Your task to perform on an android device: What's on my calendar today? Image 0: 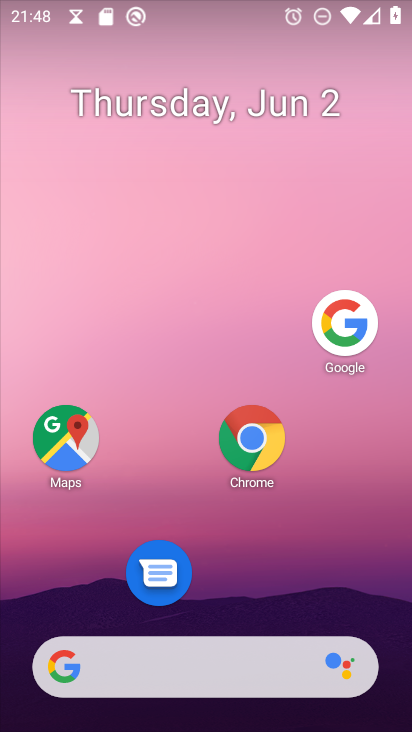
Step 0: press home button
Your task to perform on an android device: What's on my calendar today? Image 1: 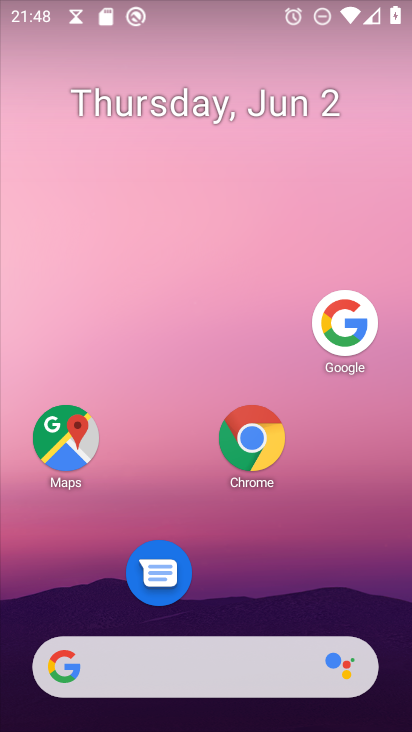
Step 1: drag from (203, 674) to (283, 178)
Your task to perform on an android device: What's on my calendar today? Image 2: 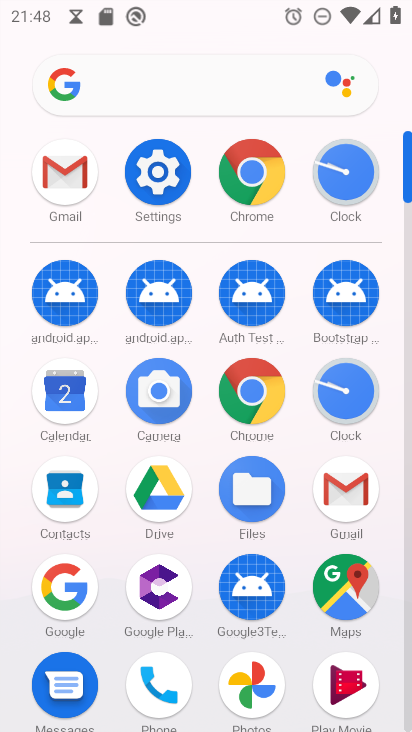
Step 2: click (62, 393)
Your task to perform on an android device: What's on my calendar today? Image 3: 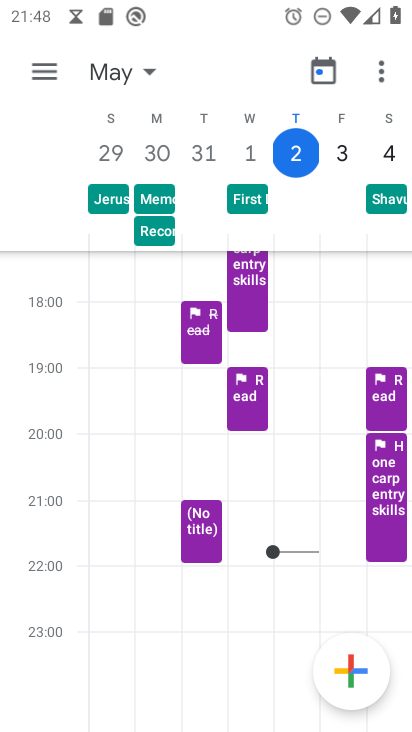
Step 3: click (107, 76)
Your task to perform on an android device: What's on my calendar today? Image 4: 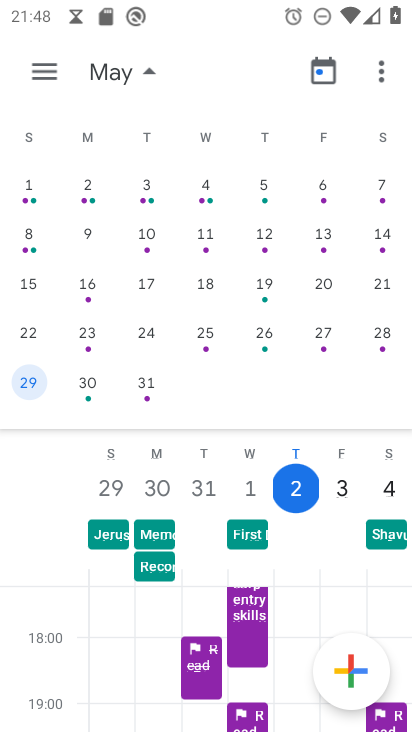
Step 4: drag from (376, 256) to (0, 272)
Your task to perform on an android device: What's on my calendar today? Image 5: 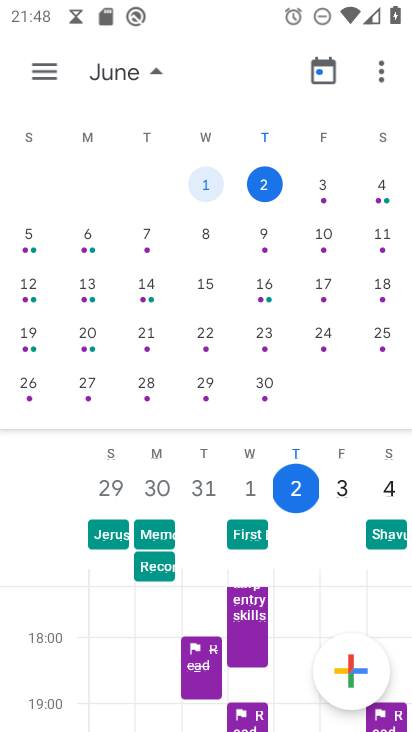
Step 5: click (270, 177)
Your task to perform on an android device: What's on my calendar today? Image 6: 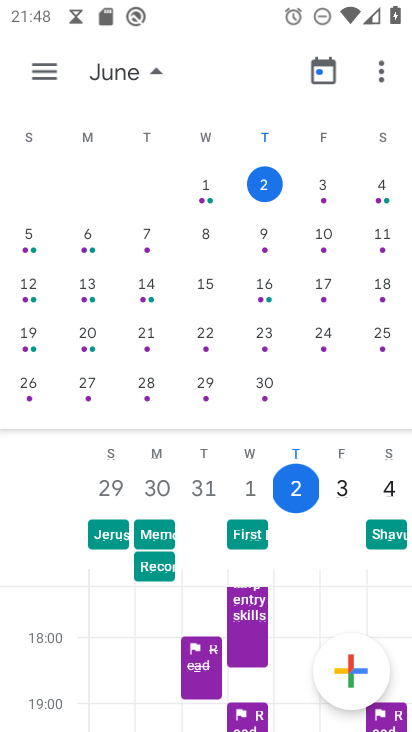
Step 6: click (42, 69)
Your task to perform on an android device: What's on my calendar today? Image 7: 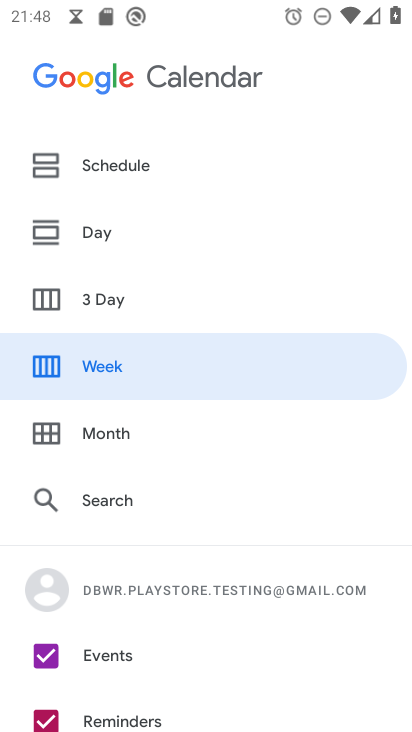
Step 7: click (98, 162)
Your task to perform on an android device: What's on my calendar today? Image 8: 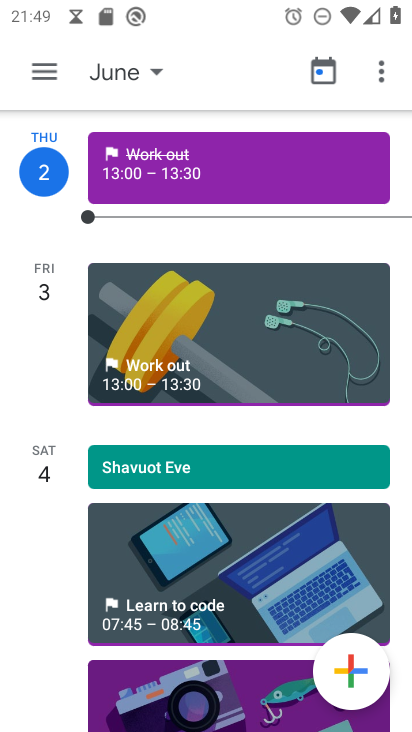
Step 8: task complete